Your task to perform on an android device: open chrome privacy settings Image 0: 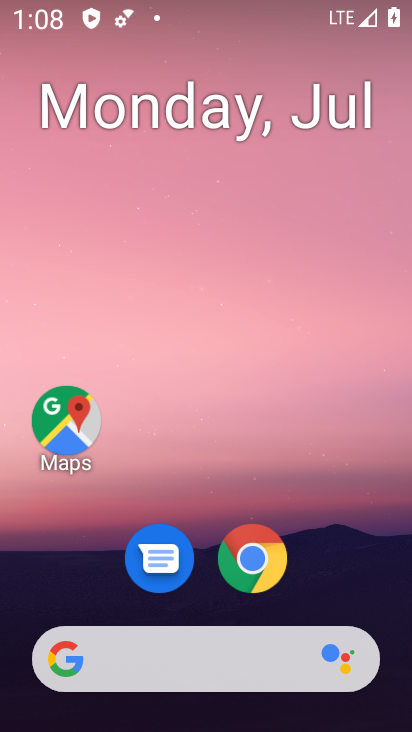
Step 0: press home button
Your task to perform on an android device: open chrome privacy settings Image 1: 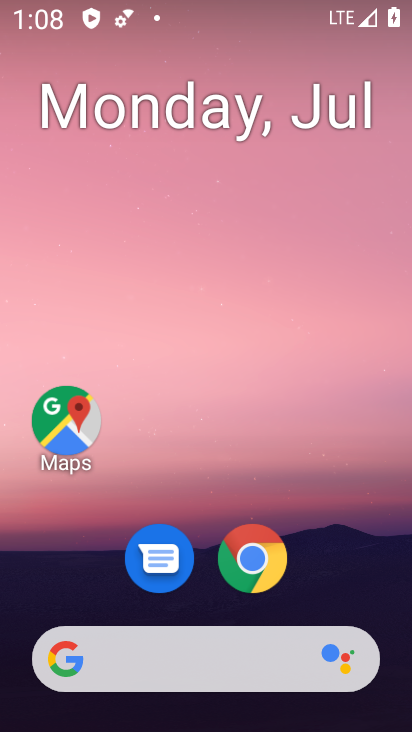
Step 1: drag from (345, 555) to (362, 100)
Your task to perform on an android device: open chrome privacy settings Image 2: 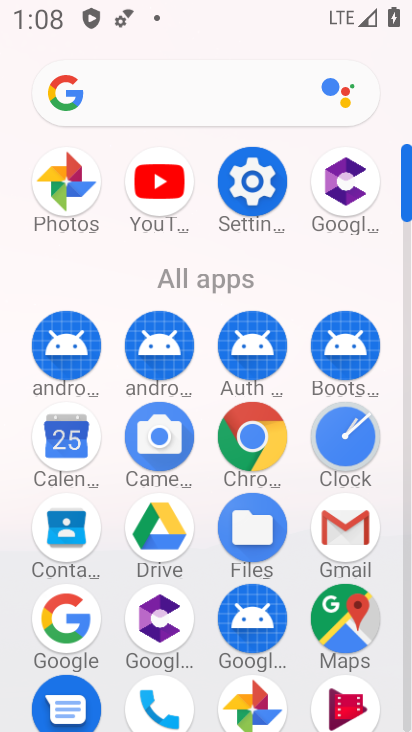
Step 2: click (259, 436)
Your task to perform on an android device: open chrome privacy settings Image 3: 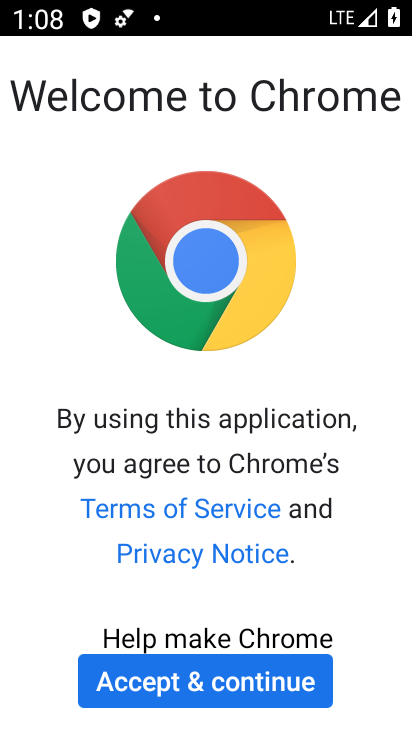
Step 3: click (181, 681)
Your task to perform on an android device: open chrome privacy settings Image 4: 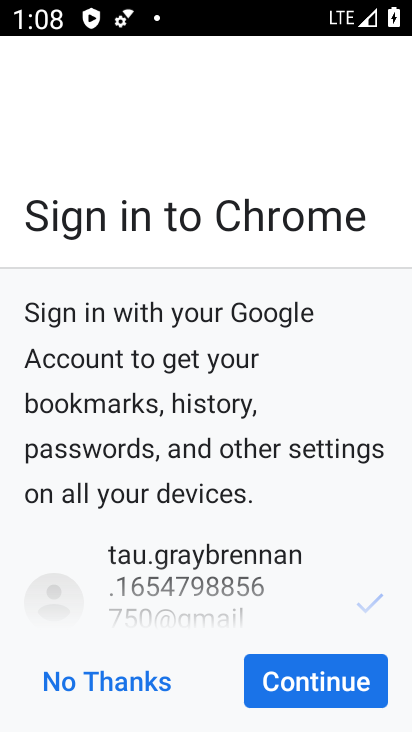
Step 4: click (282, 681)
Your task to perform on an android device: open chrome privacy settings Image 5: 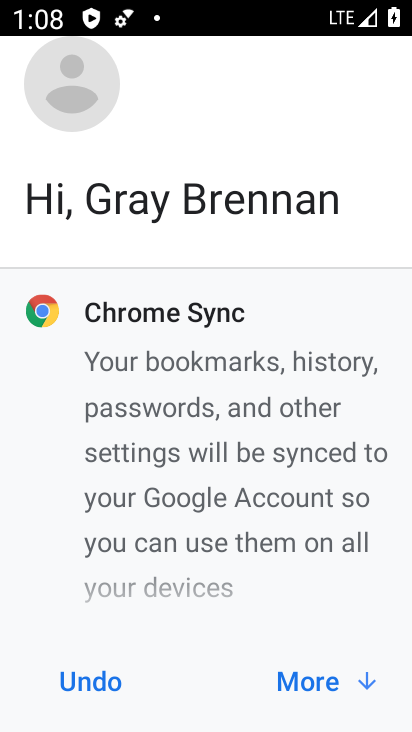
Step 5: click (302, 681)
Your task to perform on an android device: open chrome privacy settings Image 6: 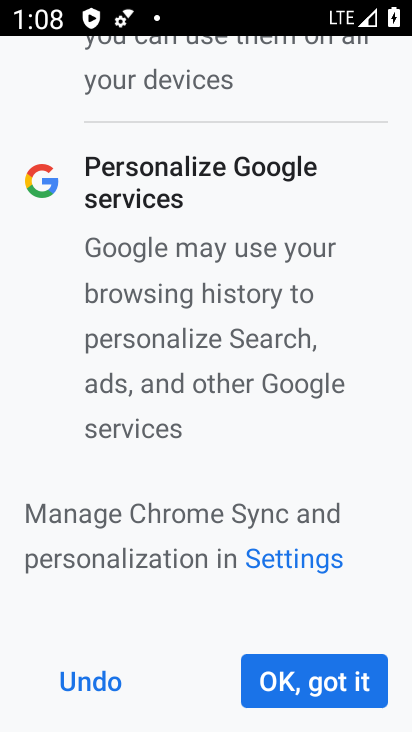
Step 6: click (302, 681)
Your task to perform on an android device: open chrome privacy settings Image 7: 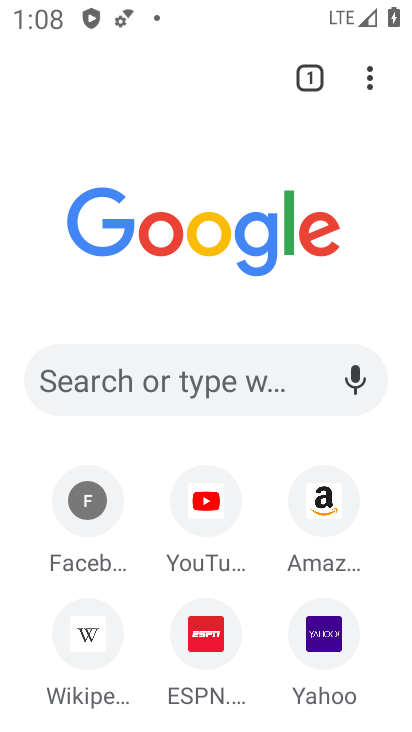
Step 7: click (369, 85)
Your task to perform on an android device: open chrome privacy settings Image 8: 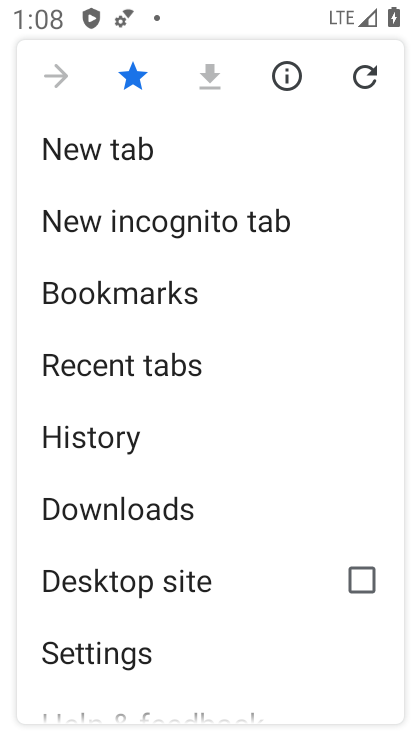
Step 8: drag from (244, 546) to (252, 491)
Your task to perform on an android device: open chrome privacy settings Image 9: 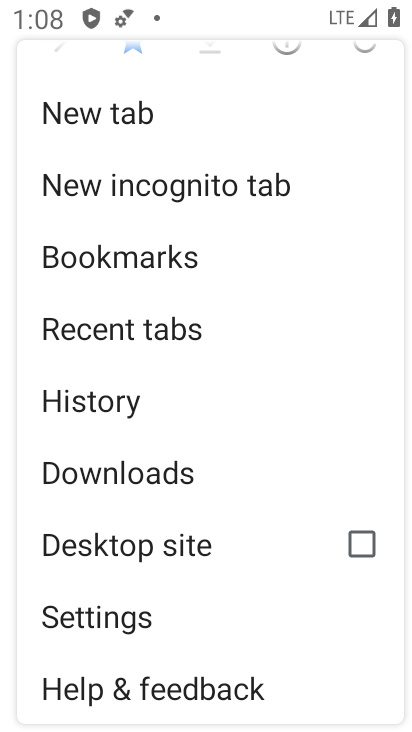
Step 9: drag from (246, 590) to (269, 482)
Your task to perform on an android device: open chrome privacy settings Image 10: 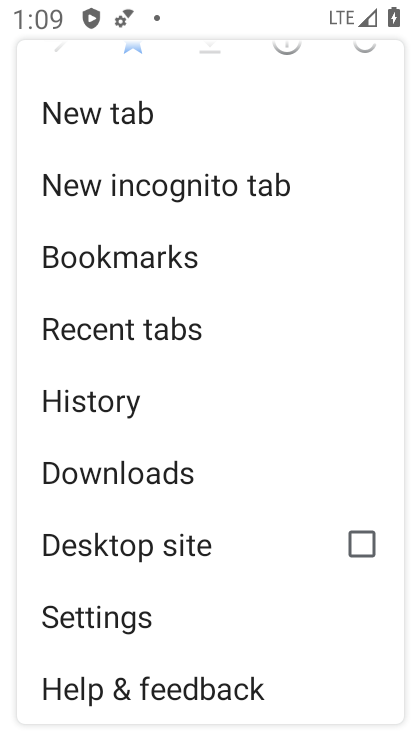
Step 10: click (214, 615)
Your task to perform on an android device: open chrome privacy settings Image 11: 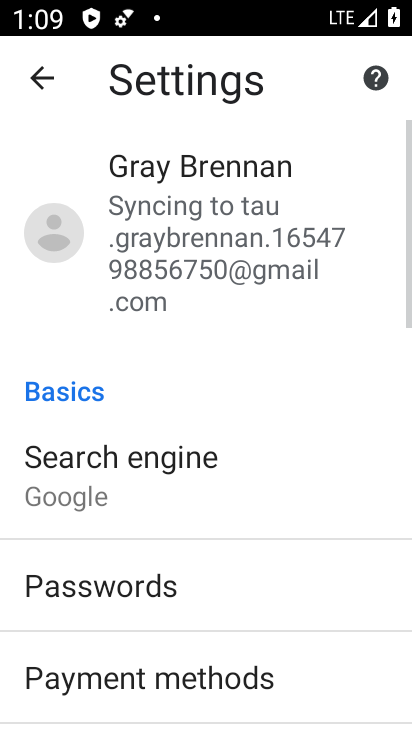
Step 11: drag from (340, 574) to (349, 474)
Your task to perform on an android device: open chrome privacy settings Image 12: 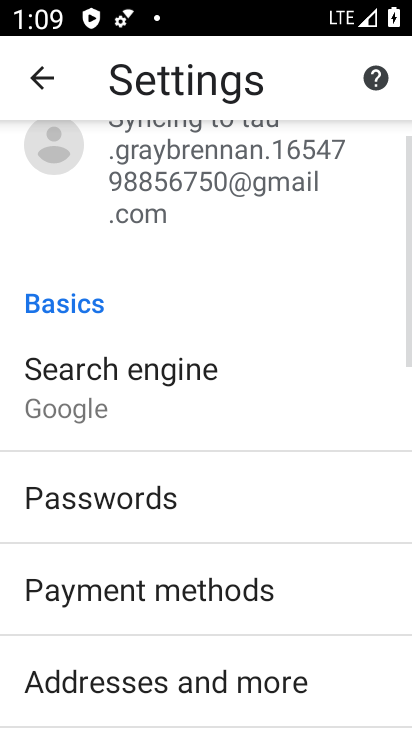
Step 12: drag from (356, 588) to (366, 483)
Your task to perform on an android device: open chrome privacy settings Image 13: 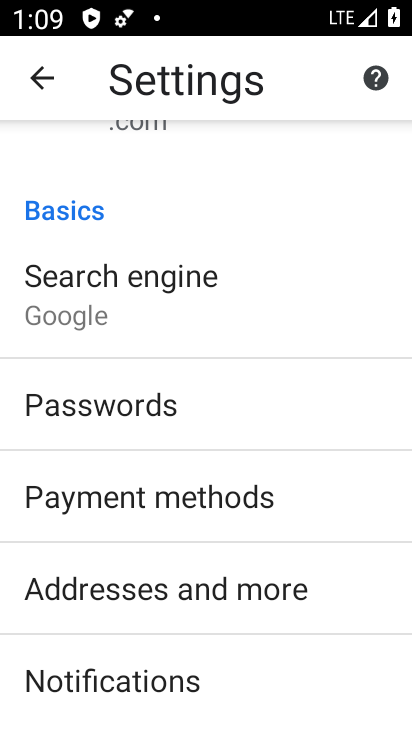
Step 13: drag from (354, 623) to (362, 534)
Your task to perform on an android device: open chrome privacy settings Image 14: 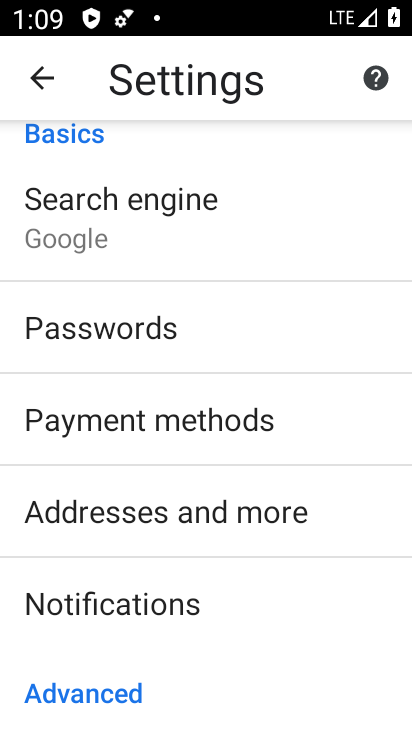
Step 14: drag from (355, 644) to (357, 549)
Your task to perform on an android device: open chrome privacy settings Image 15: 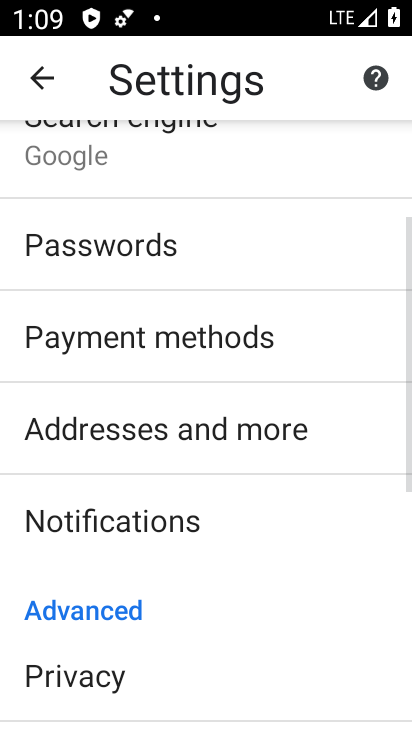
Step 15: drag from (336, 626) to (342, 523)
Your task to perform on an android device: open chrome privacy settings Image 16: 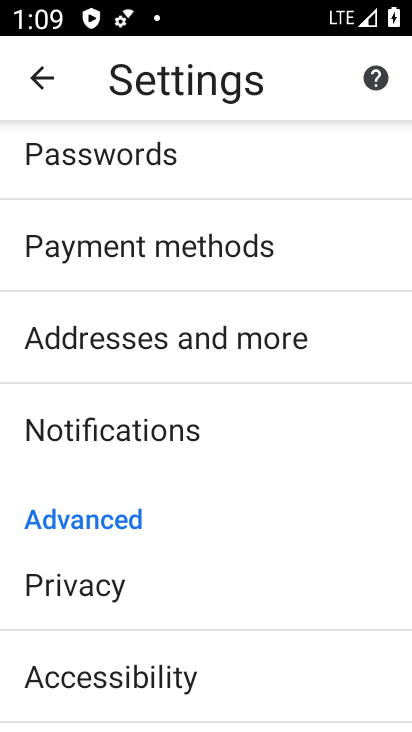
Step 16: drag from (338, 645) to (331, 546)
Your task to perform on an android device: open chrome privacy settings Image 17: 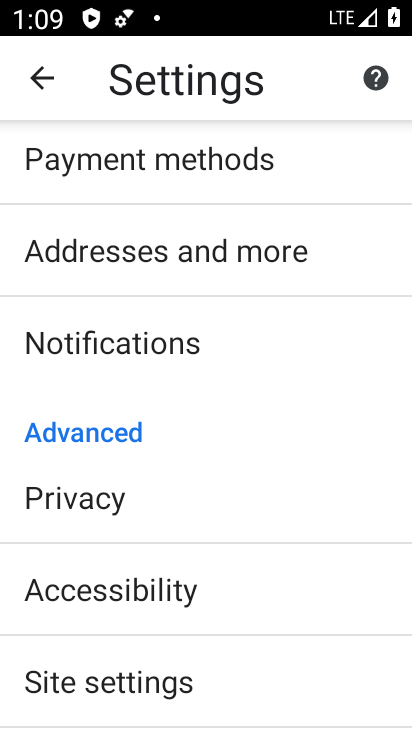
Step 17: drag from (330, 651) to (327, 570)
Your task to perform on an android device: open chrome privacy settings Image 18: 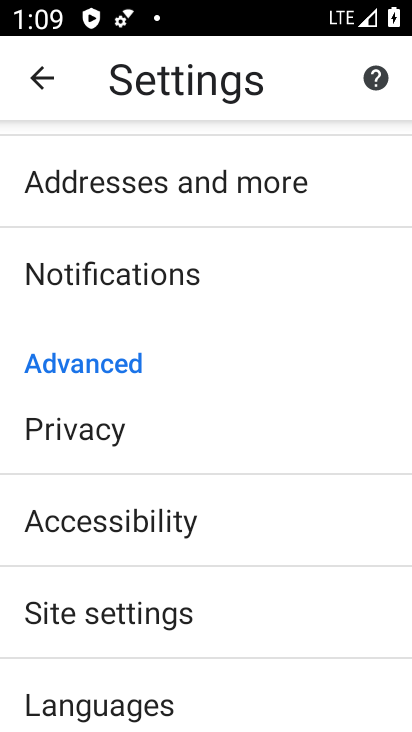
Step 18: click (177, 447)
Your task to perform on an android device: open chrome privacy settings Image 19: 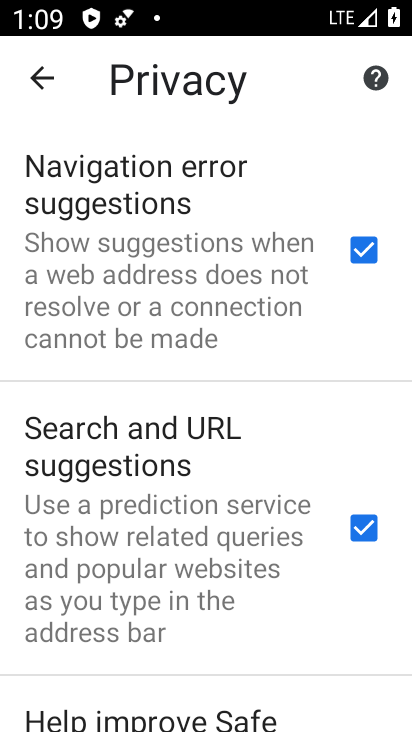
Step 19: task complete